Your task to perform on an android device: clear history in the chrome app Image 0: 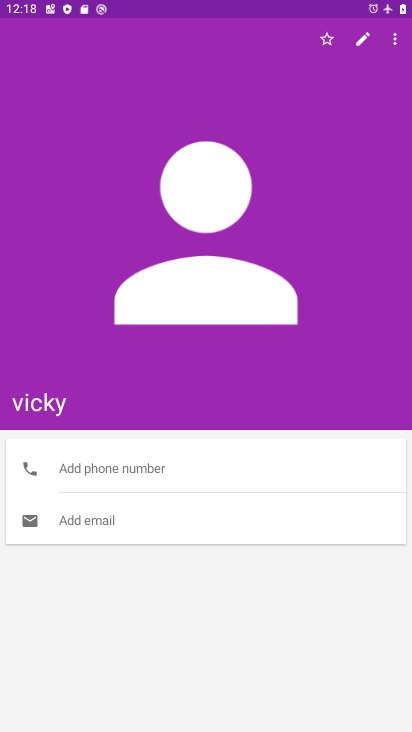
Step 0: press home button
Your task to perform on an android device: clear history in the chrome app Image 1: 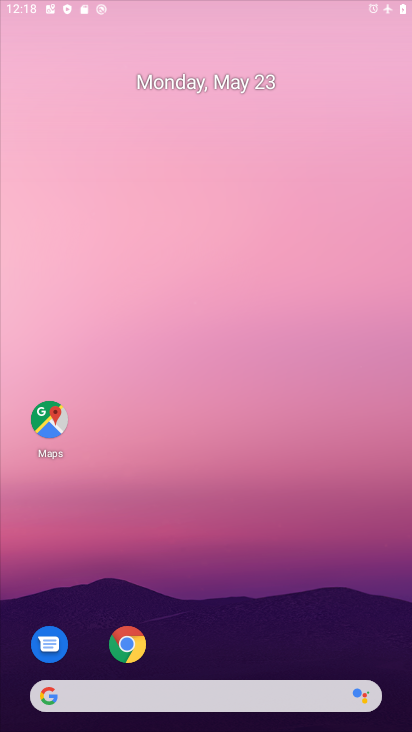
Step 1: drag from (348, 639) to (295, 56)
Your task to perform on an android device: clear history in the chrome app Image 2: 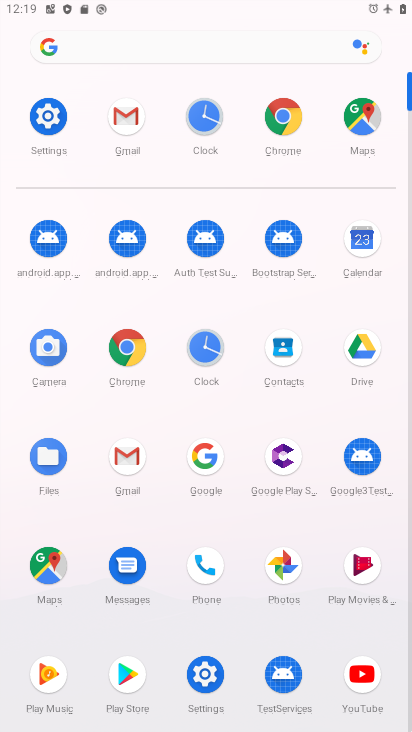
Step 2: click (281, 98)
Your task to perform on an android device: clear history in the chrome app Image 3: 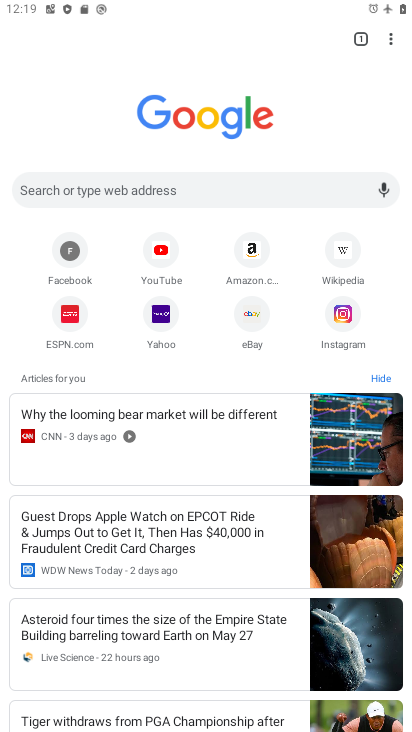
Step 3: click (387, 36)
Your task to perform on an android device: clear history in the chrome app Image 4: 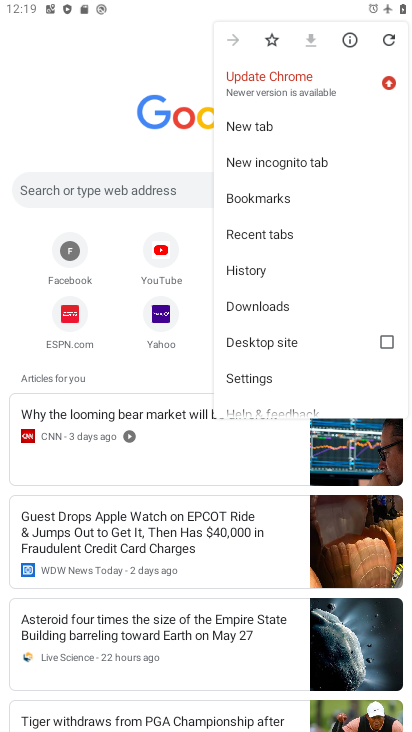
Step 4: click (305, 381)
Your task to perform on an android device: clear history in the chrome app Image 5: 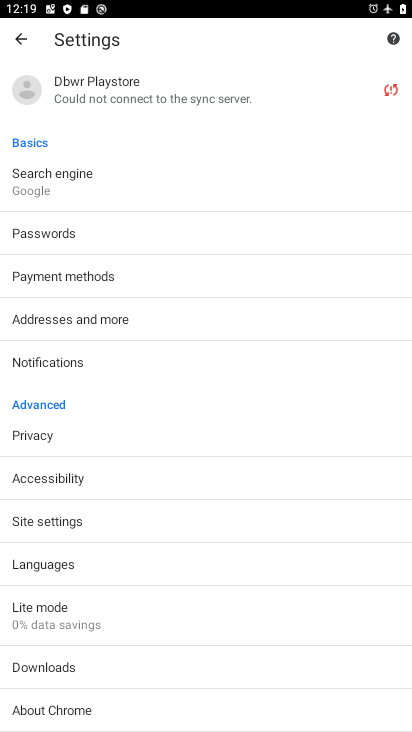
Step 5: press back button
Your task to perform on an android device: clear history in the chrome app Image 6: 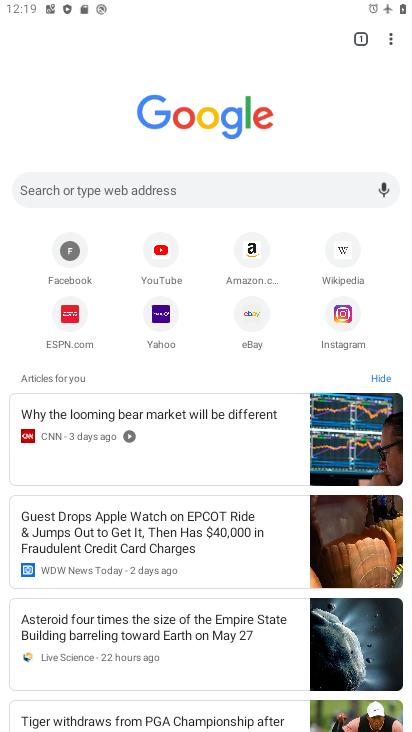
Step 6: click (396, 36)
Your task to perform on an android device: clear history in the chrome app Image 7: 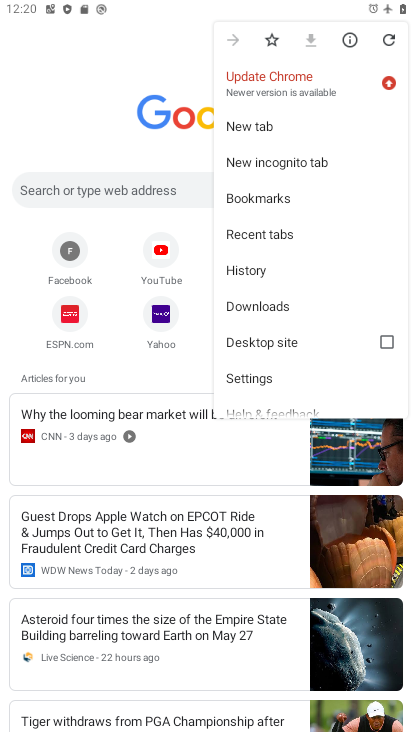
Step 7: click (268, 268)
Your task to perform on an android device: clear history in the chrome app Image 8: 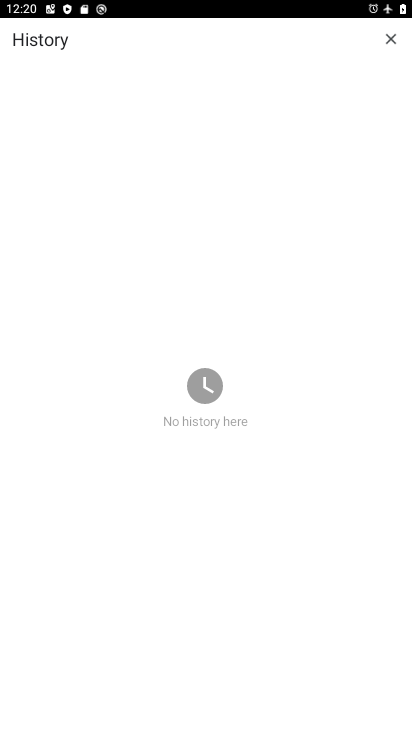
Step 8: task complete